Your task to perform on an android device: Do I have any events today? Image 0: 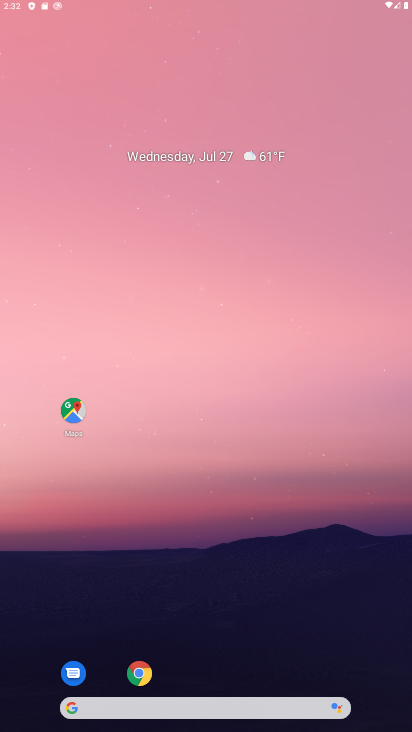
Step 0: click (82, 712)
Your task to perform on an android device: Do I have any events today? Image 1: 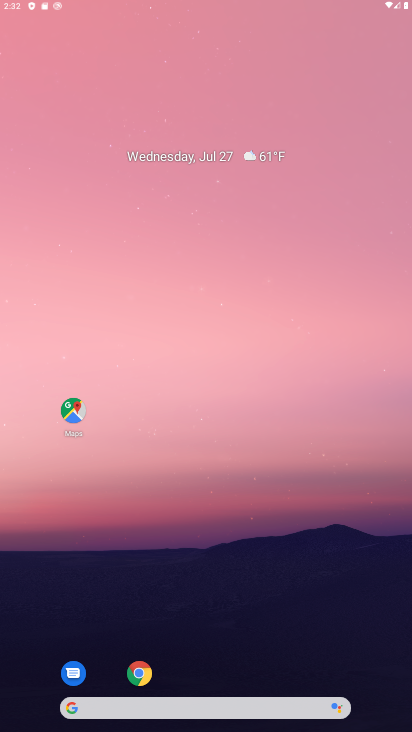
Step 1: click (86, 702)
Your task to perform on an android device: Do I have any events today? Image 2: 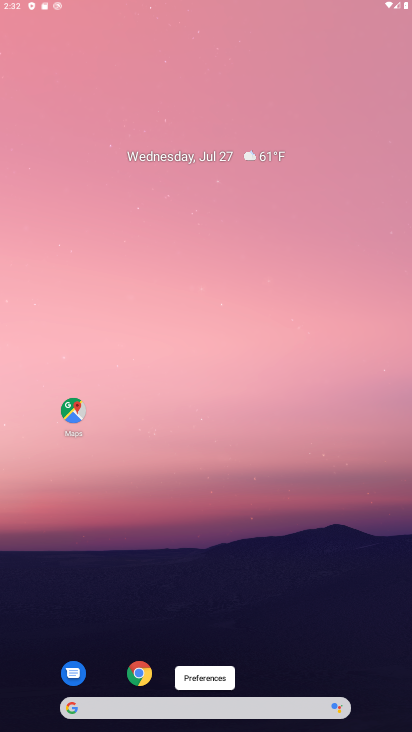
Step 2: click (87, 706)
Your task to perform on an android device: Do I have any events today? Image 3: 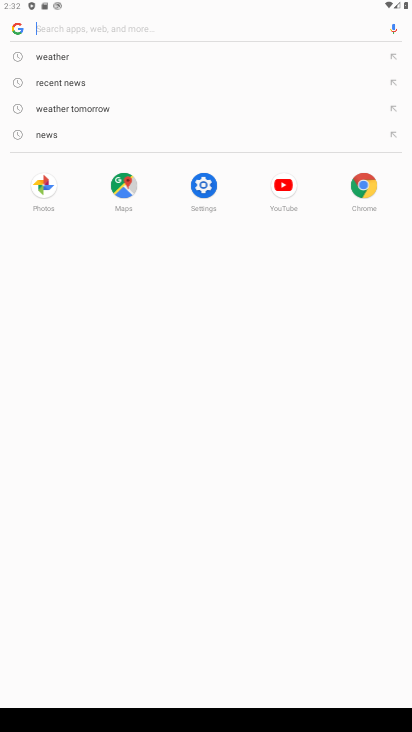
Step 3: type "Do I have any events today?"
Your task to perform on an android device: Do I have any events today? Image 4: 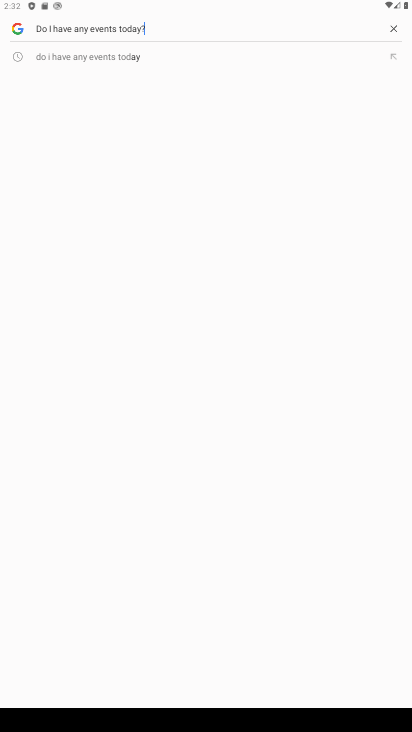
Step 4: type ""
Your task to perform on an android device: Do I have any events today? Image 5: 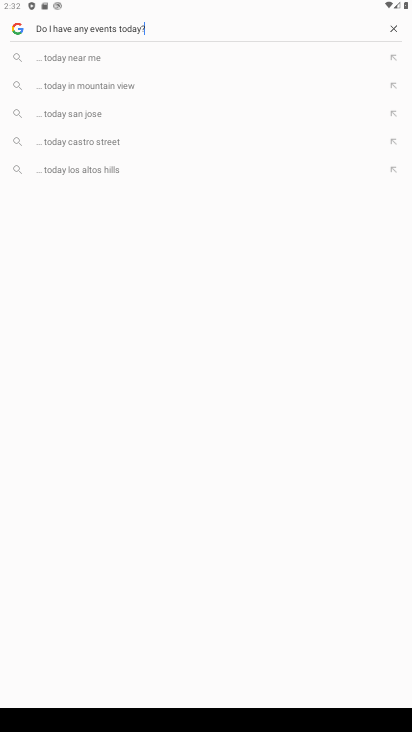
Step 5: type ""
Your task to perform on an android device: Do I have any events today? Image 6: 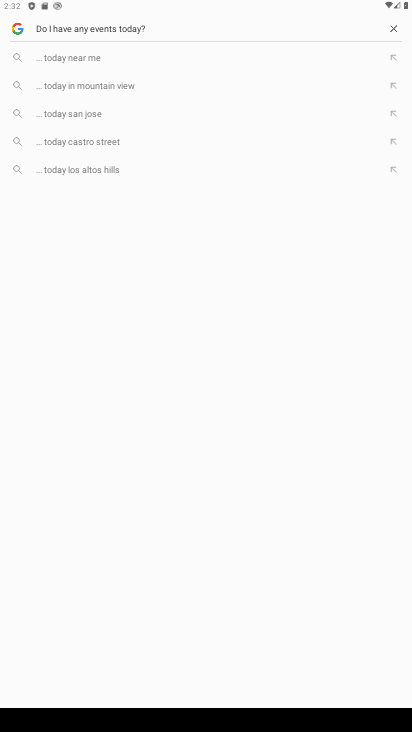
Step 6: task complete